Your task to perform on an android device: Search for panasonic triple a on target.com, select the first entry, add it to the cart, then select checkout. Image 0: 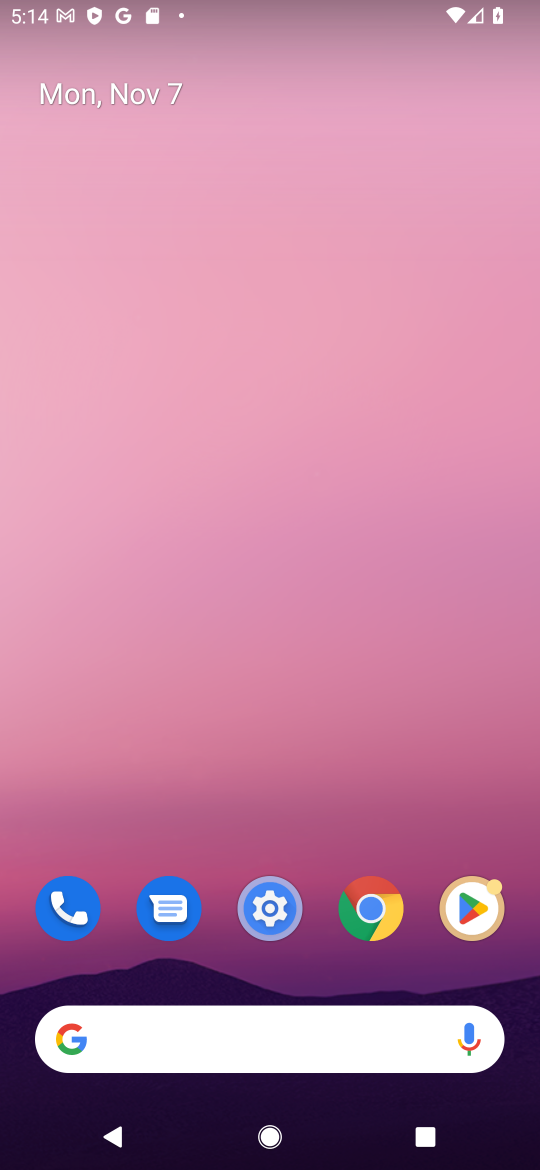
Step 0: click (211, 1048)
Your task to perform on an android device: Search for panasonic triple a on target.com, select the first entry, add it to the cart, then select checkout. Image 1: 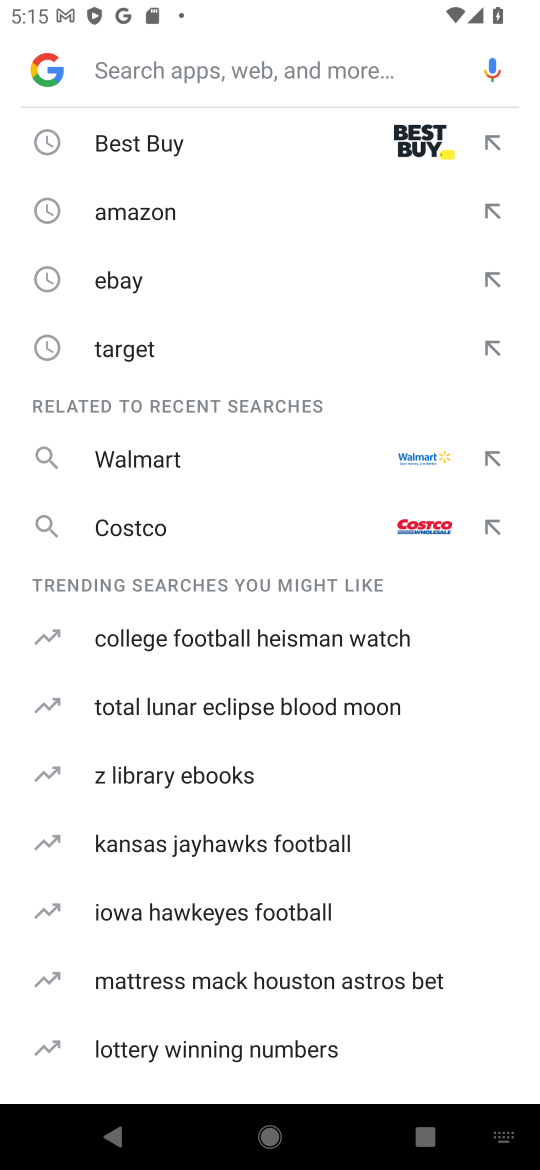
Step 1: type "panasonic"
Your task to perform on an android device: Search for panasonic triple a on target.com, select the first entry, add it to the cart, then select checkout. Image 2: 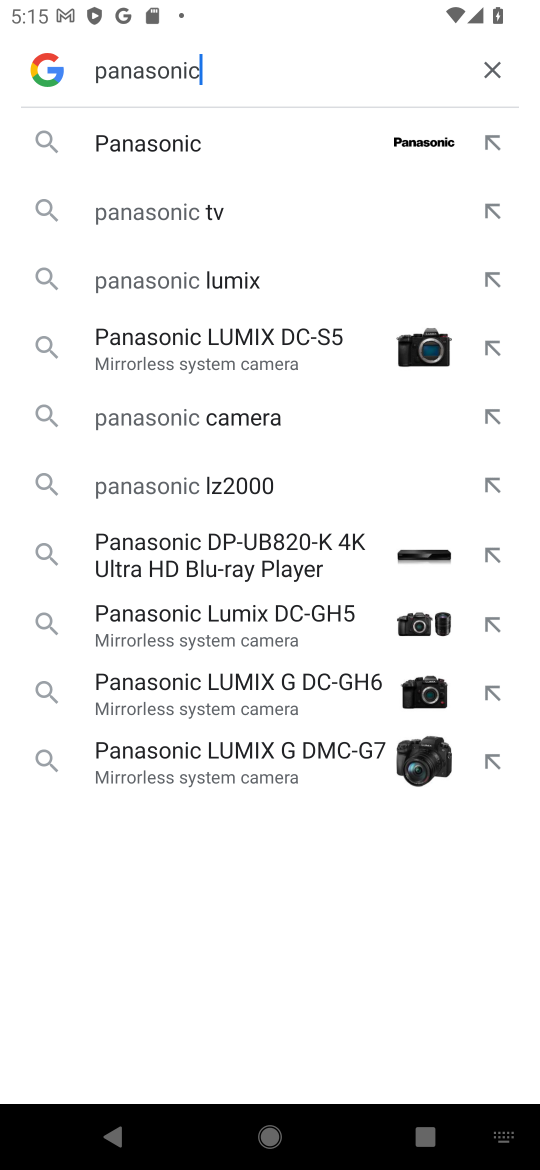
Step 2: click (195, 133)
Your task to perform on an android device: Search for panasonic triple a on target.com, select the first entry, add it to the cart, then select checkout. Image 3: 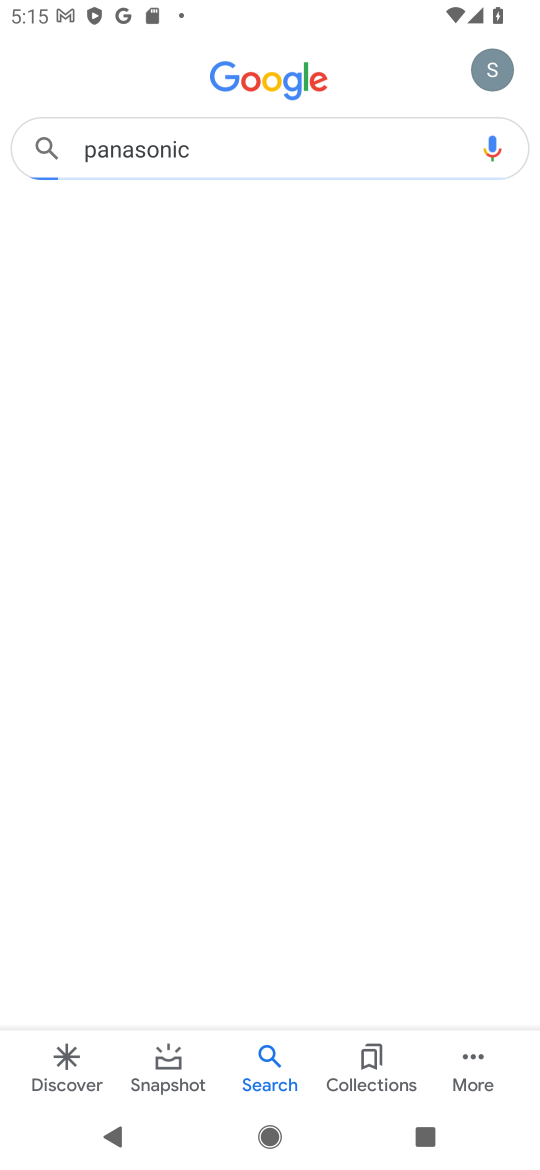
Step 3: task complete